Your task to perform on an android device: What's the weather like in San Francisco? Image 0: 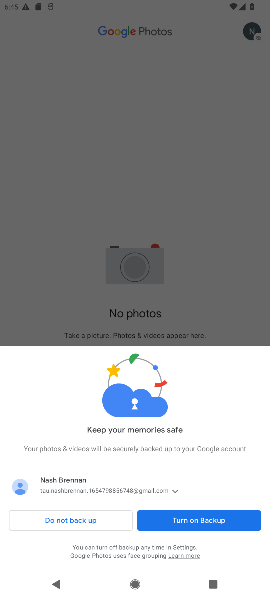
Step 0: press home button
Your task to perform on an android device: What's the weather like in San Francisco? Image 1: 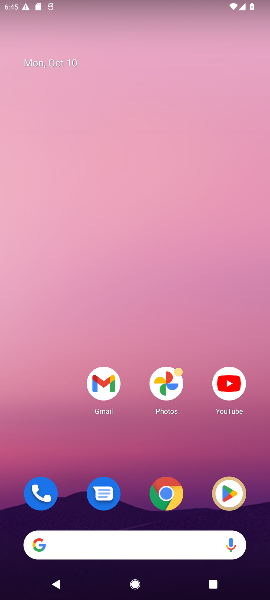
Step 1: drag from (128, 507) to (100, 10)
Your task to perform on an android device: What's the weather like in San Francisco? Image 2: 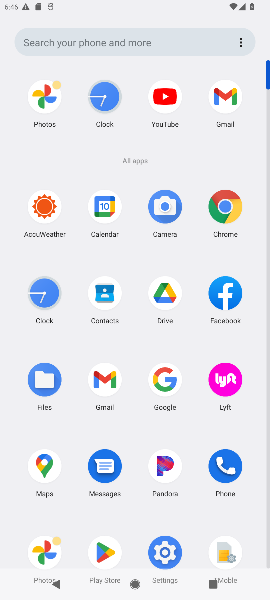
Step 2: click (161, 376)
Your task to perform on an android device: What's the weather like in San Francisco? Image 3: 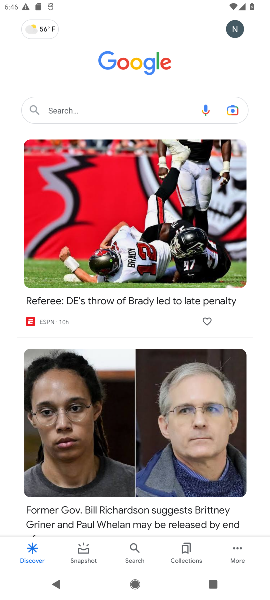
Step 3: click (91, 105)
Your task to perform on an android device: What's the weather like in San Francisco? Image 4: 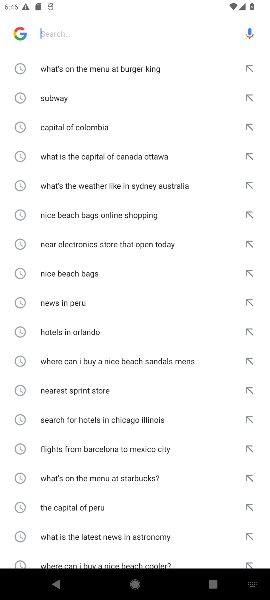
Step 4: type "What's the weather like in San Francisco?"
Your task to perform on an android device: What's the weather like in San Francisco? Image 5: 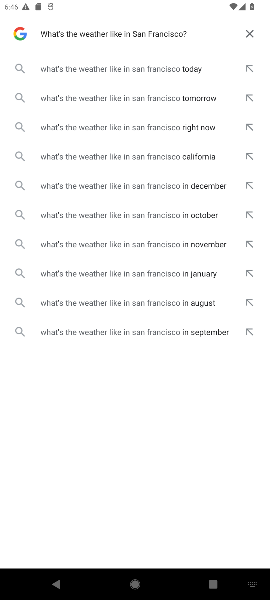
Step 5: click (133, 76)
Your task to perform on an android device: What's the weather like in San Francisco? Image 6: 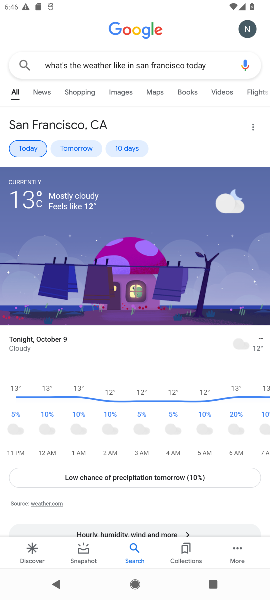
Step 6: task complete